Your task to perform on an android device: What's the weather today? Image 0: 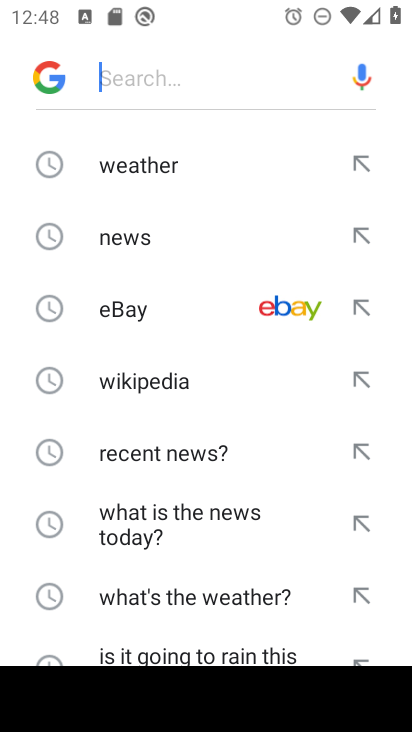
Step 0: press home button
Your task to perform on an android device: What's the weather today? Image 1: 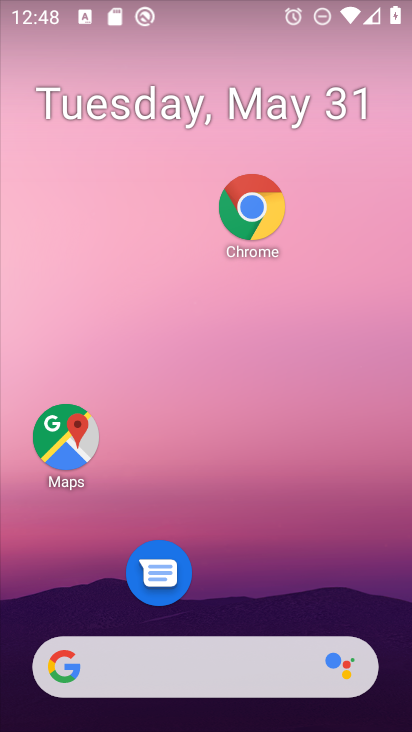
Step 1: drag from (211, 552) to (234, 162)
Your task to perform on an android device: What's the weather today? Image 2: 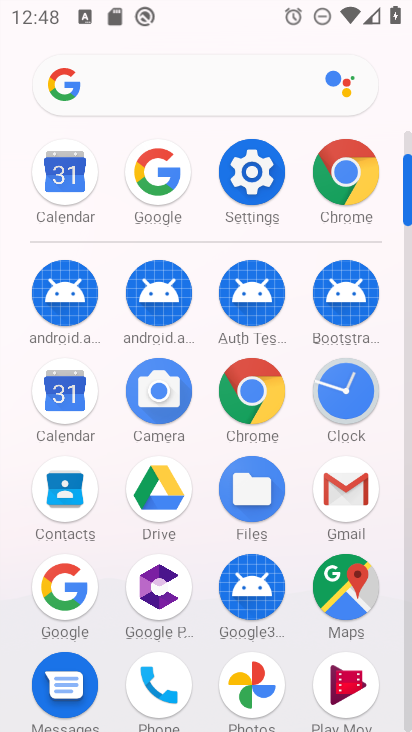
Step 2: click (64, 588)
Your task to perform on an android device: What's the weather today? Image 3: 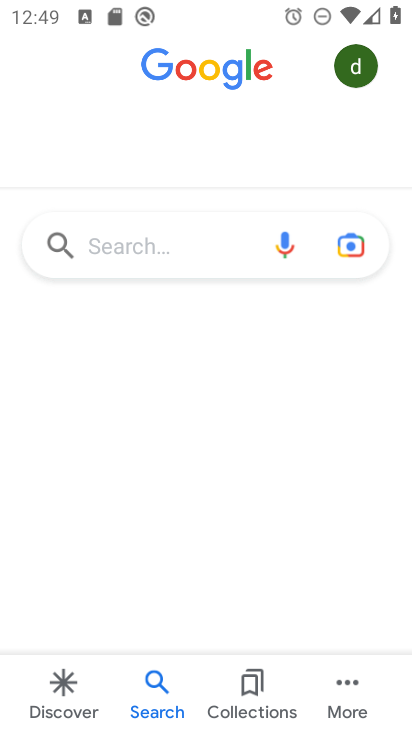
Step 3: click (125, 251)
Your task to perform on an android device: What's the weather today? Image 4: 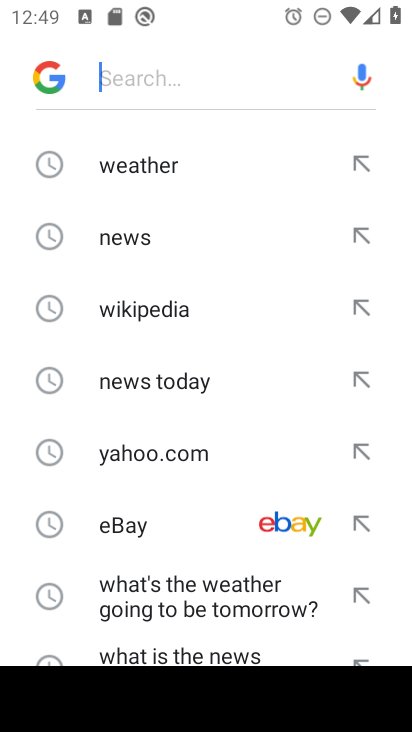
Step 4: click (152, 182)
Your task to perform on an android device: What's the weather today? Image 5: 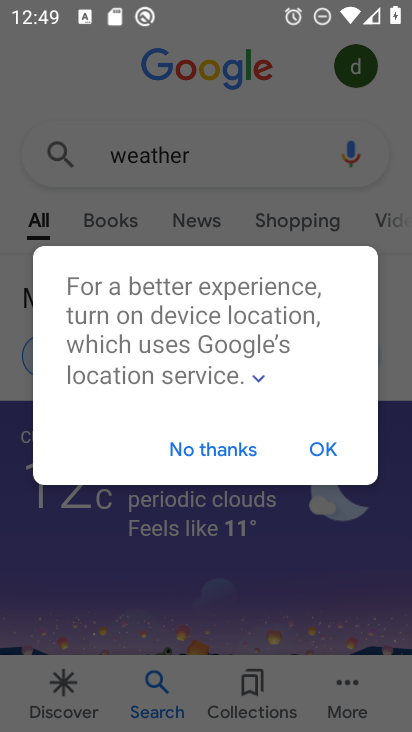
Step 5: click (321, 451)
Your task to perform on an android device: What's the weather today? Image 6: 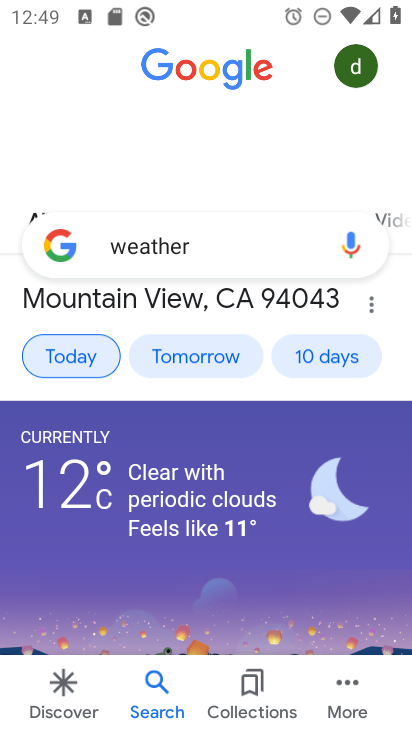
Step 6: task complete